Your task to perform on an android device: change the clock display to analog Image 0: 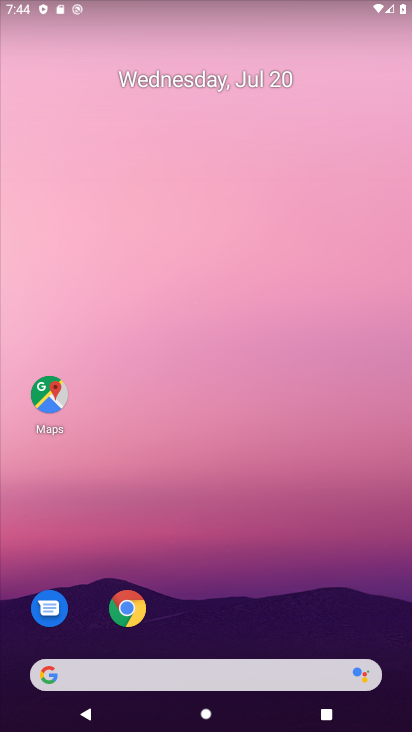
Step 0: drag from (213, 635) to (235, 82)
Your task to perform on an android device: change the clock display to analog Image 1: 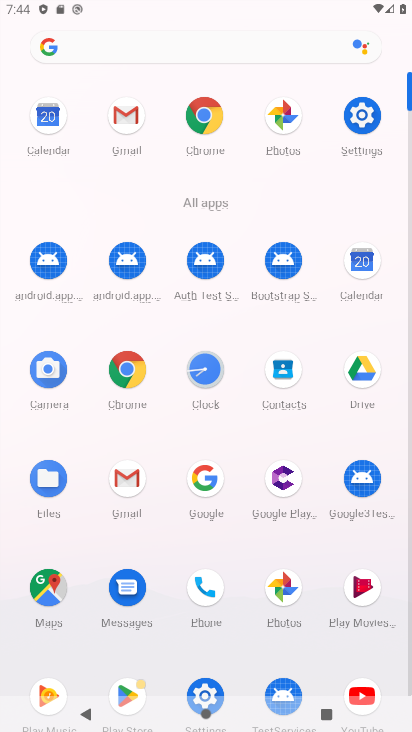
Step 1: click (197, 378)
Your task to perform on an android device: change the clock display to analog Image 2: 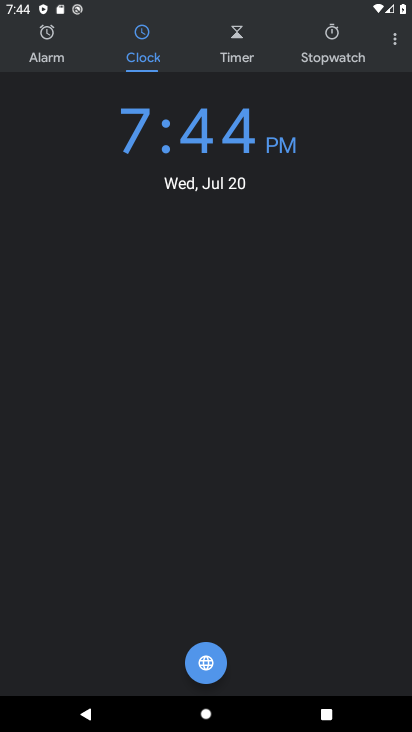
Step 2: click (395, 43)
Your task to perform on an android device: change the clock display to analog Image 3: 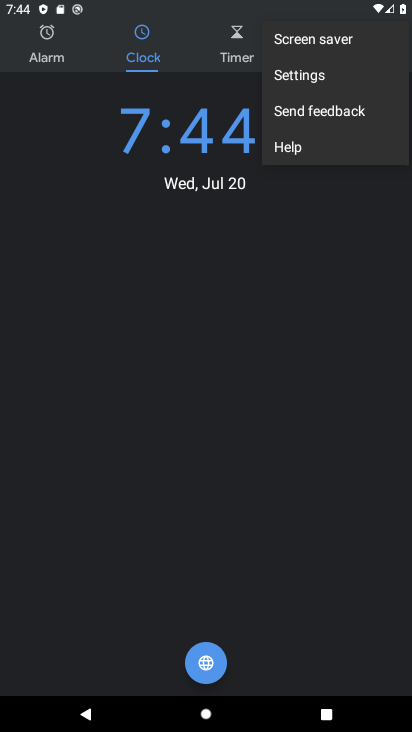
Step 3: click (308, 86)
Your task to perform on an android device: change the clock display to analog Image 4: 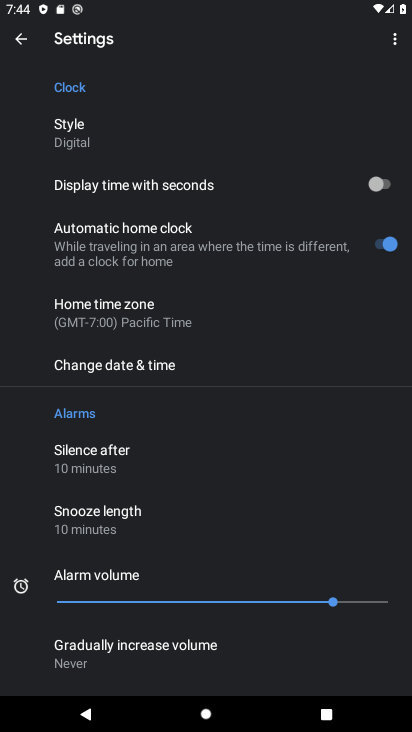
Step 4: click (94, 142)
Your task to perform on an android device: change the clock display to analog Image 5: 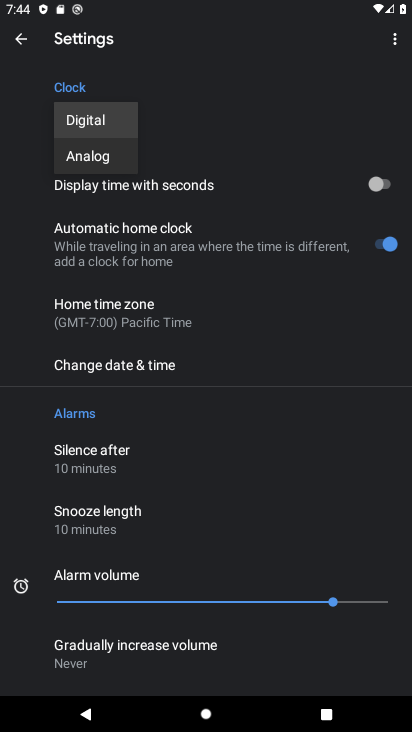
Step 5: click (109, 162)
Your task to perform on an android device: change the clock display to analog Image 6: 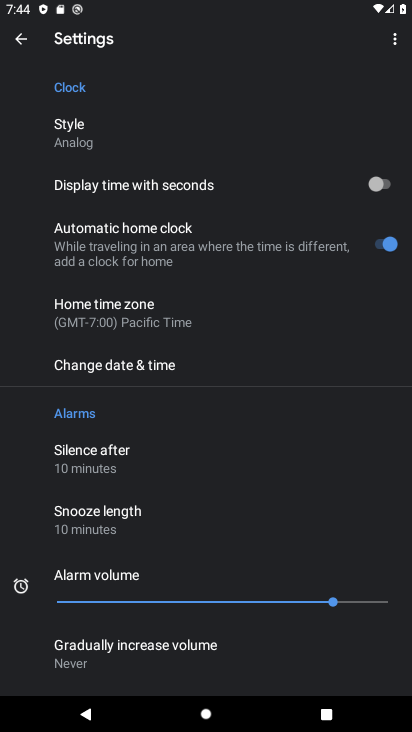
Step 6: task complete